Your task to perform on an android device: open app "Truecaller" (install if not already installed) and go to login screen Image 0: 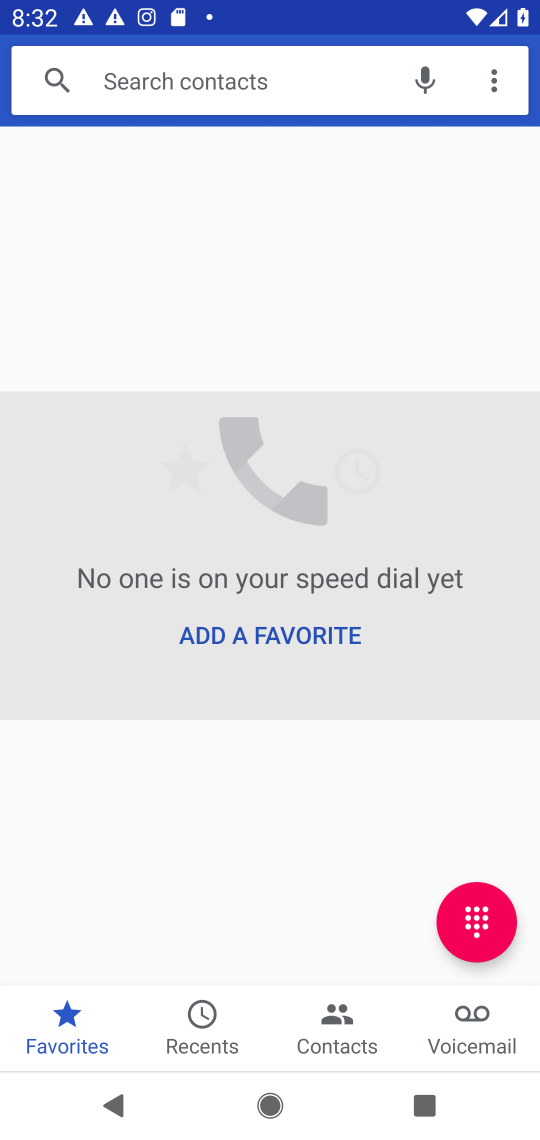
Step 0: press home button
Your task to perform on an android device: open app "Truecaller" (install if not already installed) and go to login screen Image 1: 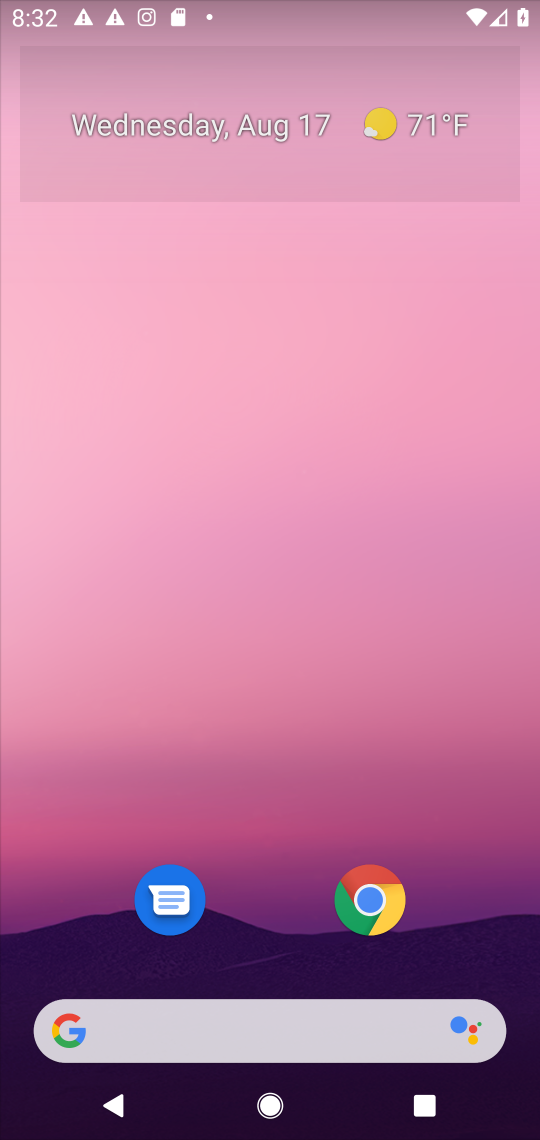
Step 1: drag from (263, 843) to (132, 4)
Your task to perform on an android device: open app "Truecaller" (install if not already installed) and go to login screen Image 2: 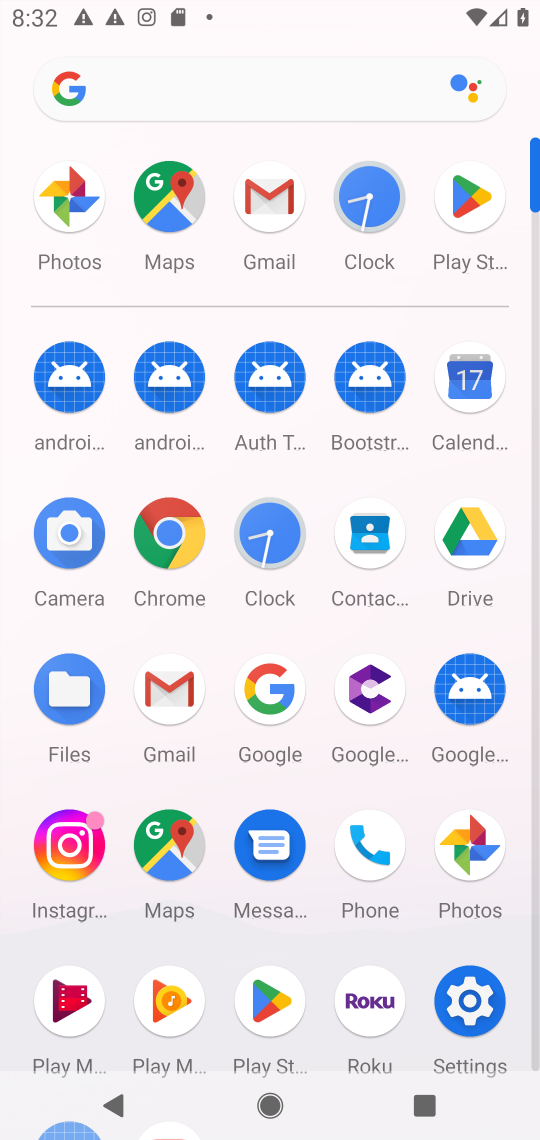
Step 2: click (468, 206)
Your task to perform on an android device: open app "Truecaller" (install if not already installed) and go to login screen Image 3: 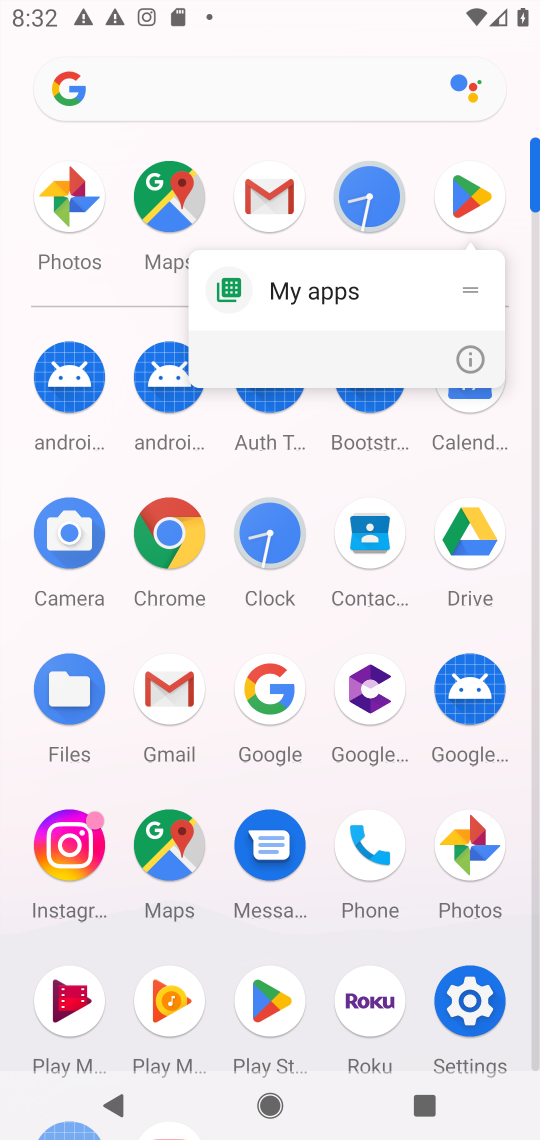
Step 3: click (469, 203)
Your task to perform on an android device: open app "Truecaller" (install if not already installed) and go to login screen Image 4: 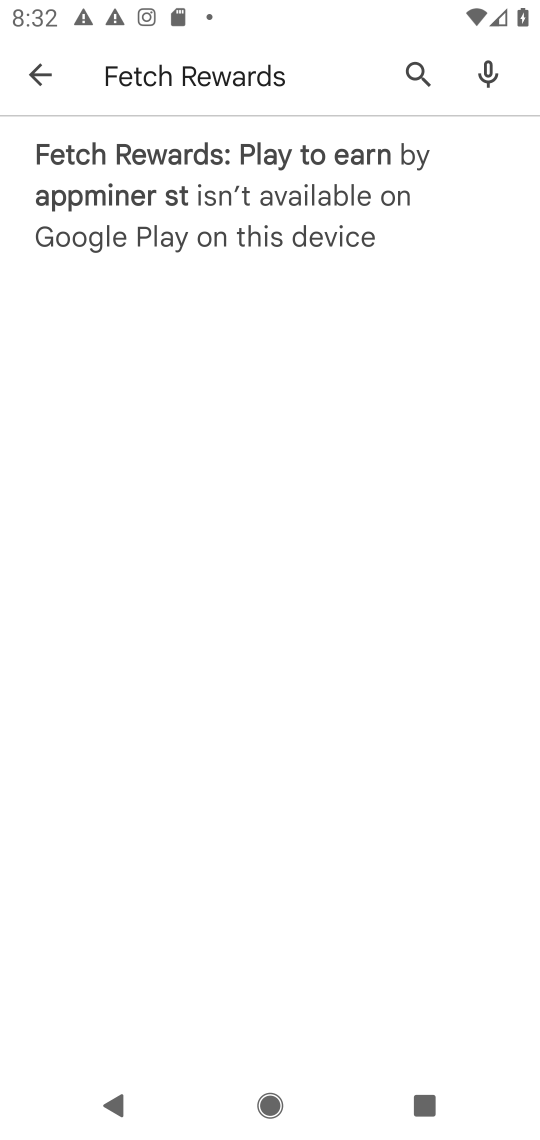
Step 4: click (44, 89)
Your task to perform on an android device: open app "Truecaller" (install if not already installed) and go to login screen Image 5: 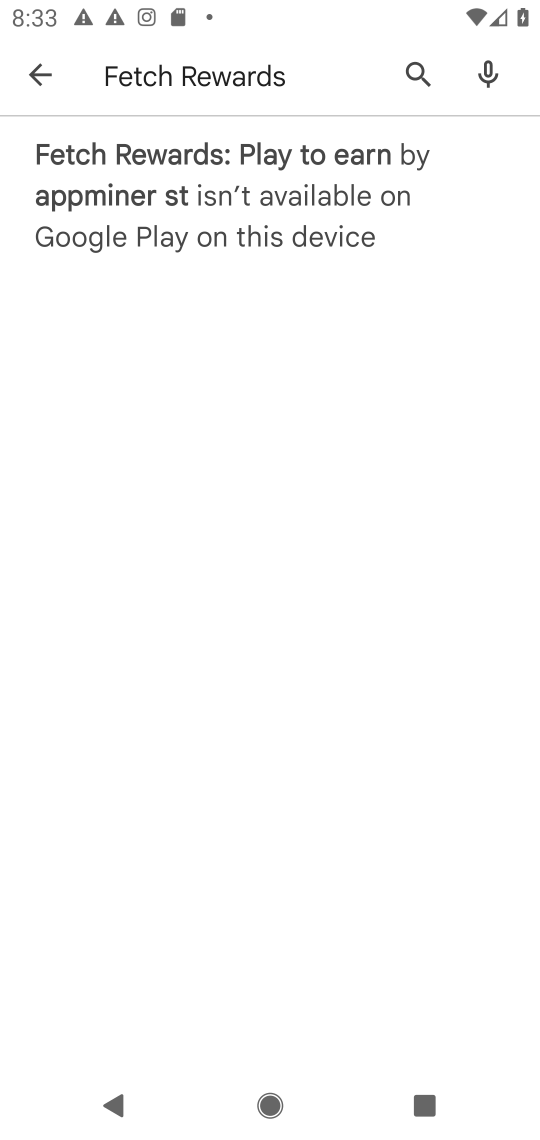
Step 5: click (37, 85)
Your task to perform on an android device: open app "Truecaller" (install if not already installed) and go to login screen Image 6: 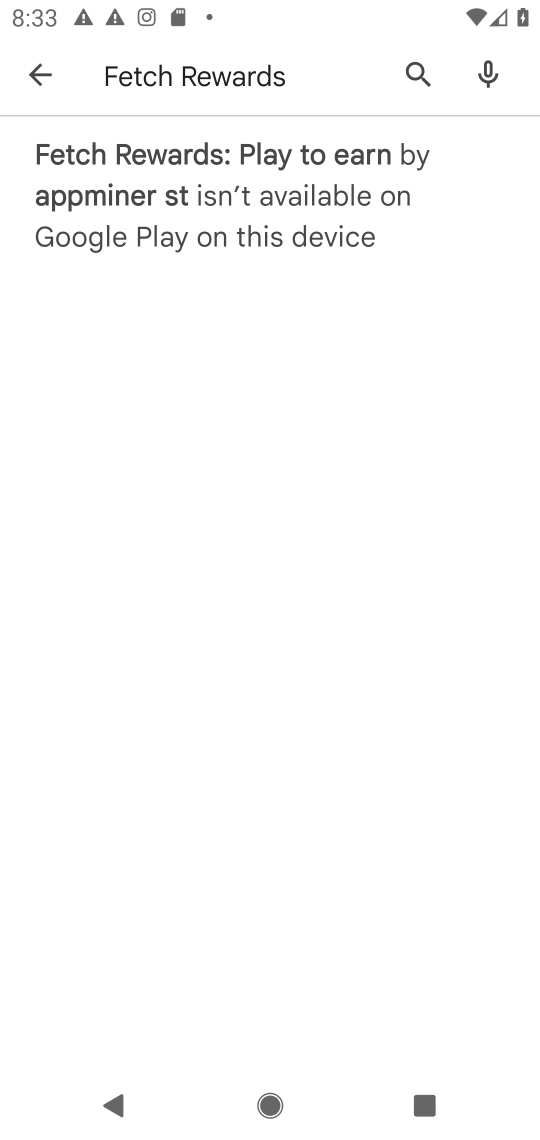
Step 6: click (66, 68)
Your task to perform on an android device: open app "Truecaller" (install if not already installed) and go to login screen Image 7: 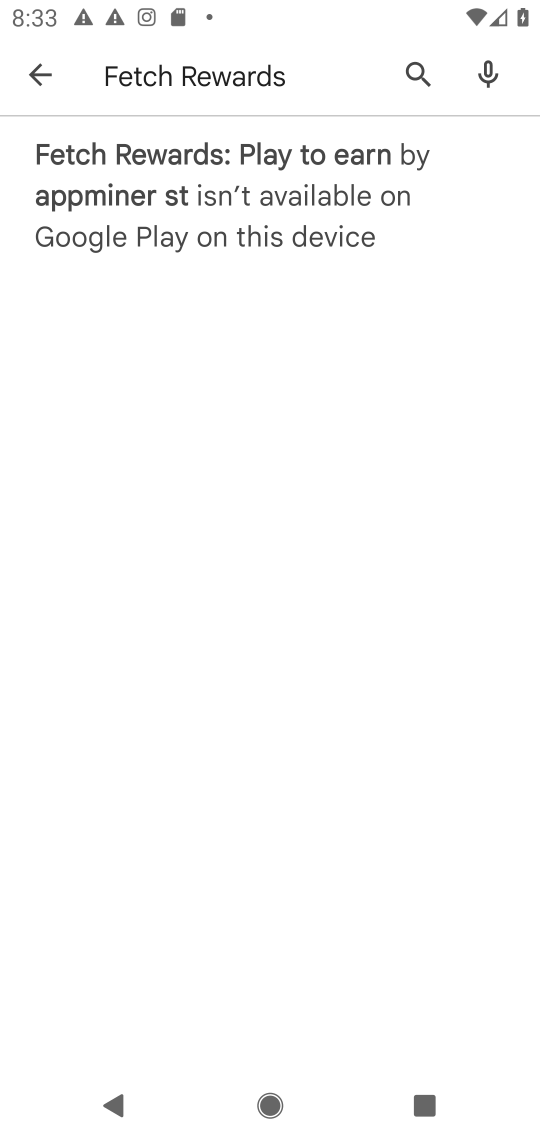
Step 7: press back button
Your task to perform on an android device: open app "Truecaller" (install if not already installed) and go to login screen Image 8: 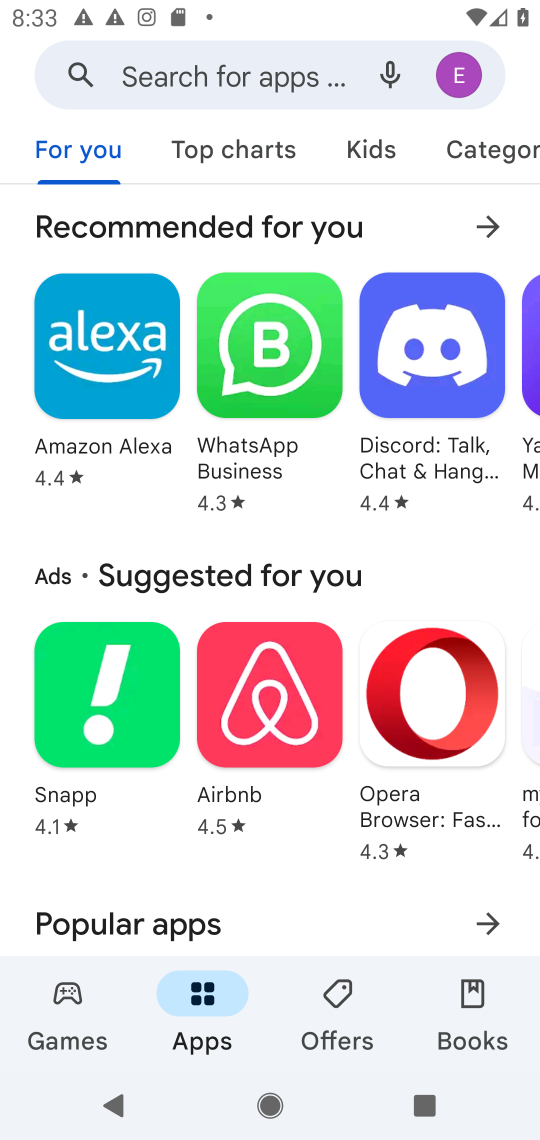
Step 8: click (177, 63)
Your task to perform on an android device: open app "Truecaller" (install if not already installed) and go to login screen Image 9: 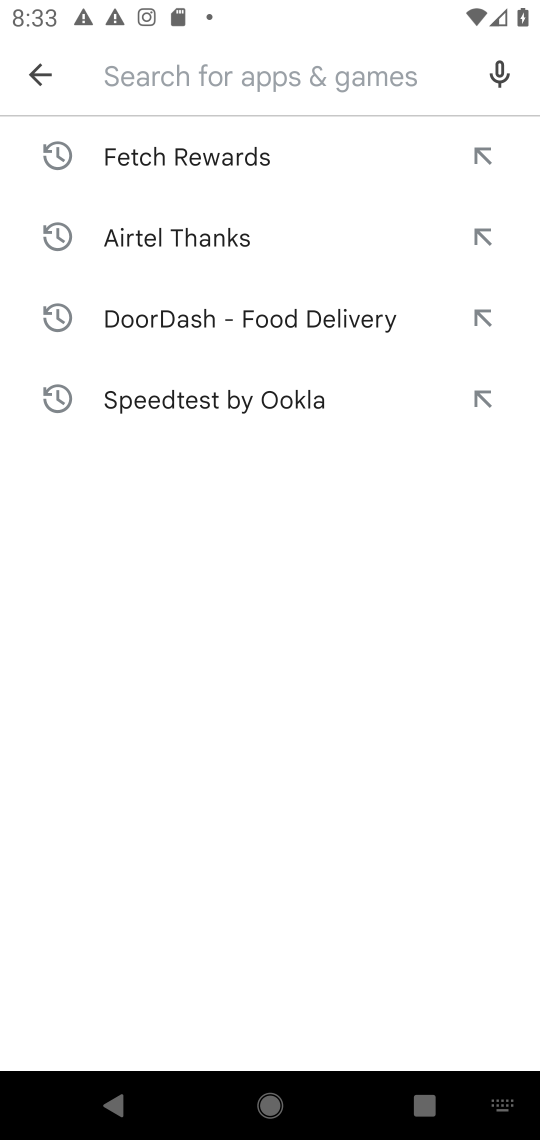
Step 9: type "Truecaller"
Your task to perform on an android device: open app "Truecaller" (install if not already installed) and go to login screen Image 10: 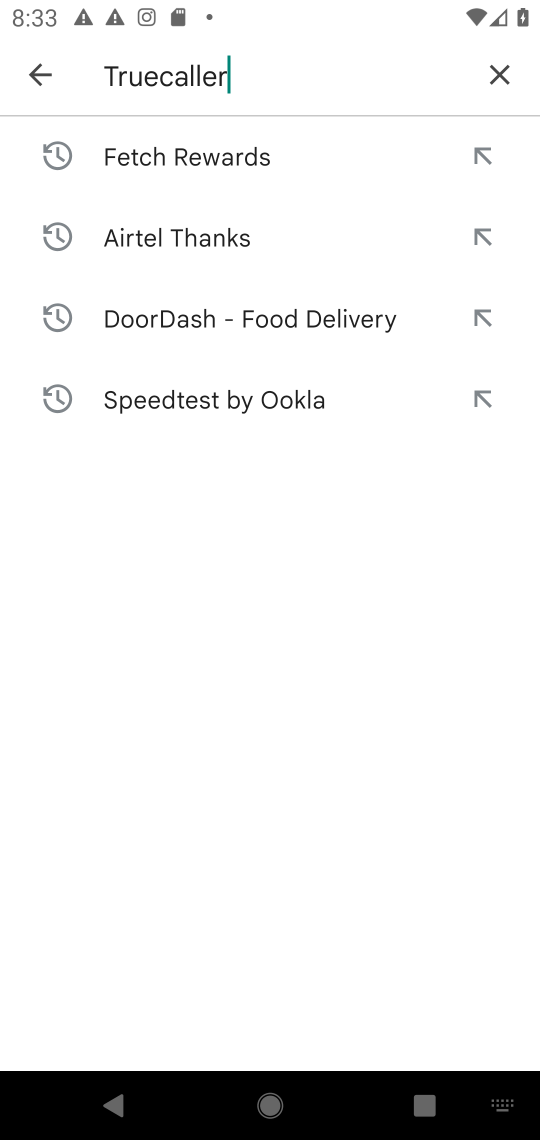
Step 10: press enter
Your task to perform on an android device: open app "Truecaller" (install if not already installed) and go to login screen Image 11: 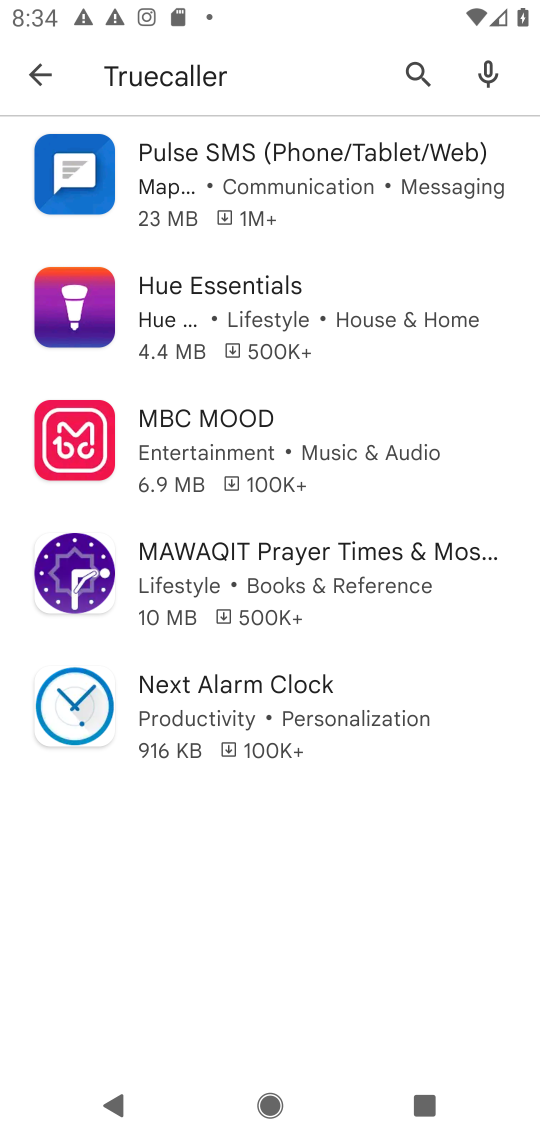
Step 11: task complete